Your task to perform on an android device: turn pop-ups off in chrome Image 0: 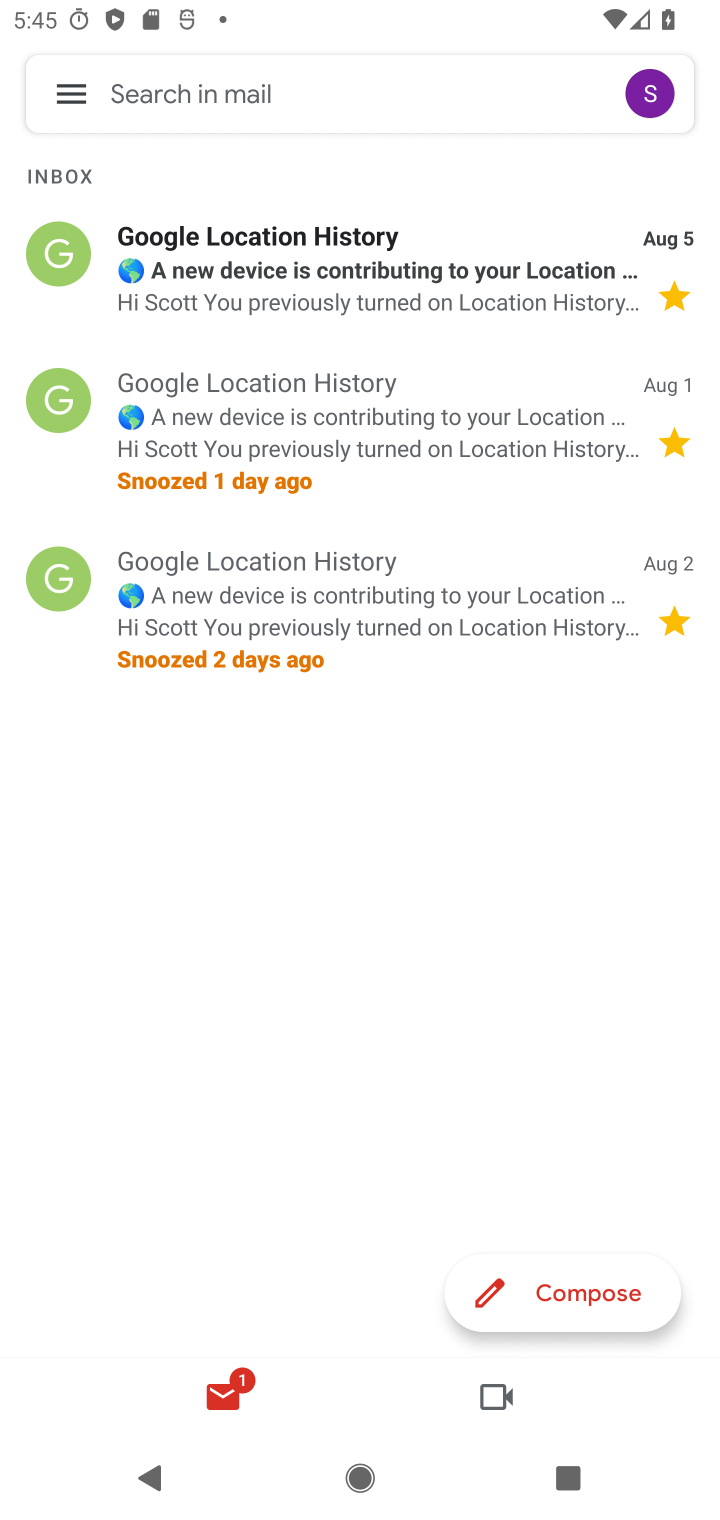
Step 0: press home button
Your task to perform on an android device: turn pop-ups off in chrome Image 1: 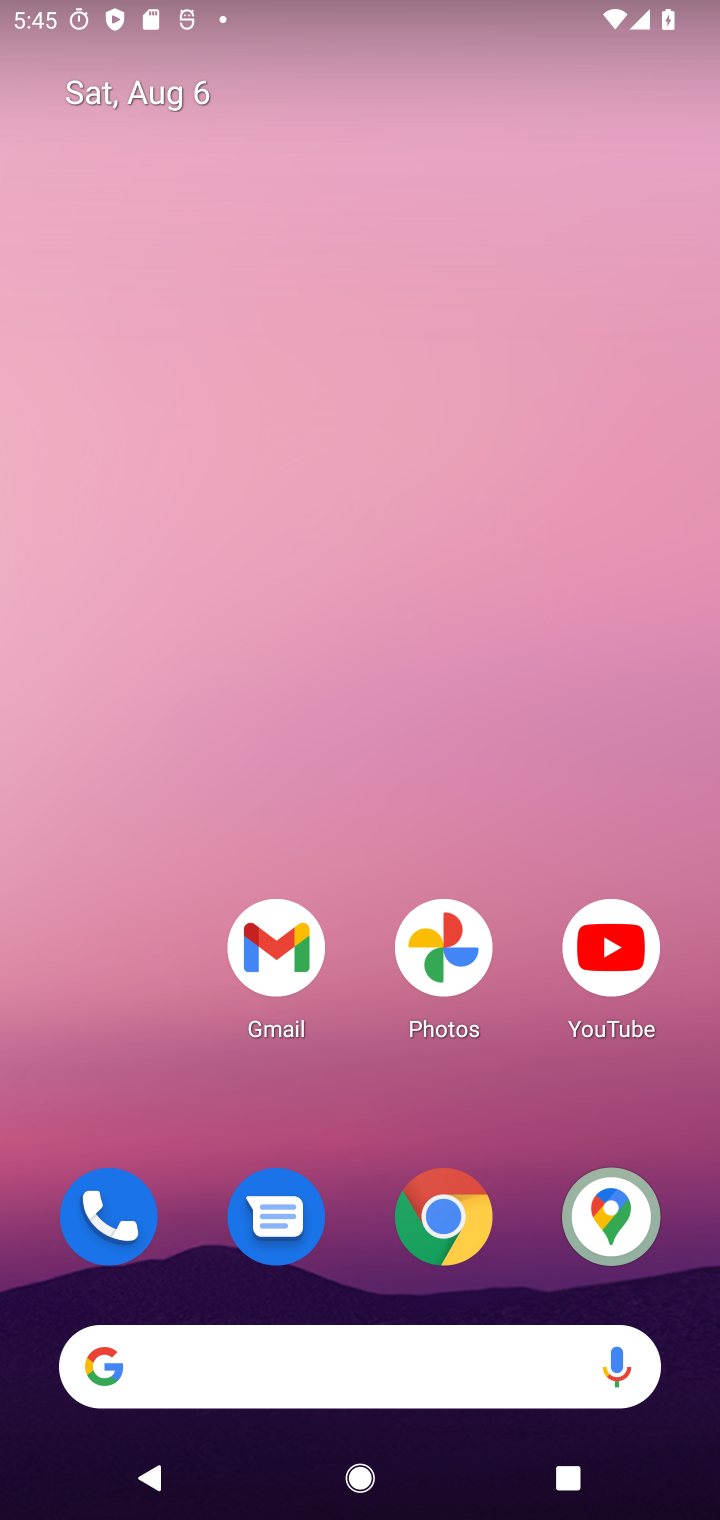
Step 1: drag from (498, 1076) to (516, 0)
Your task to perform on an android device: turn pop-ups off in chrome Image 2: 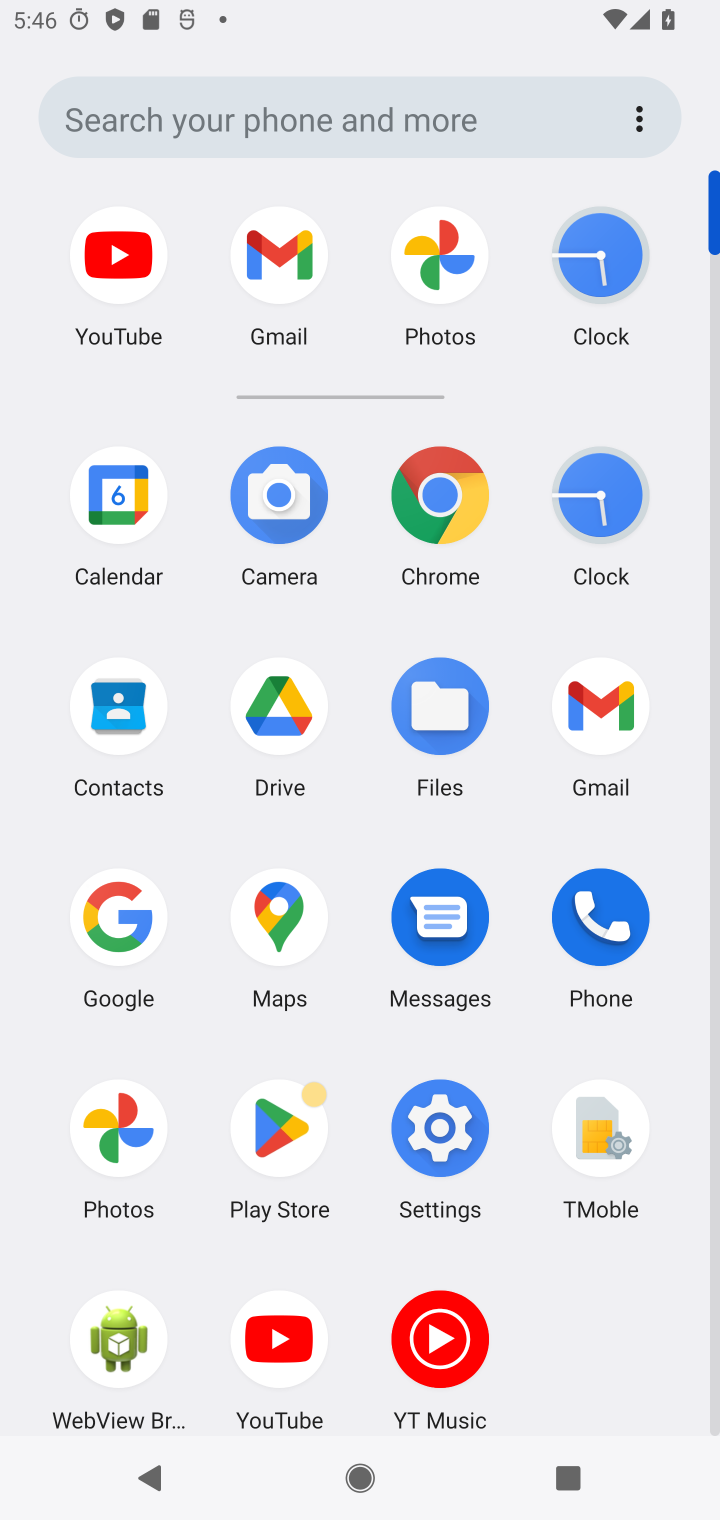
Step 2: click (446, 498)
Your task to perform on an android device: turn pop-ups off in chrome Image 3: 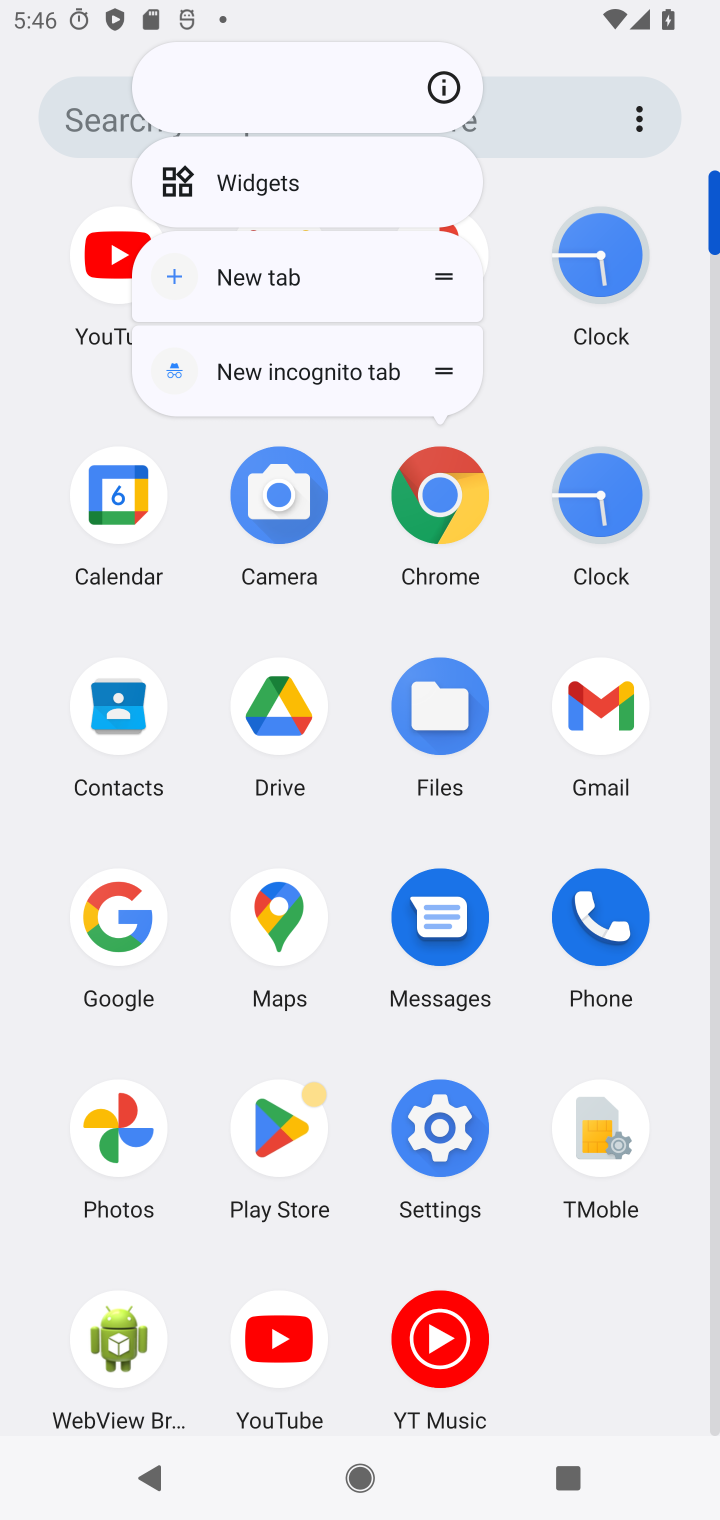
Step 3: click (438, 499)
Your task to perform on an android device: turn pop-ups off in chrome Image 4: 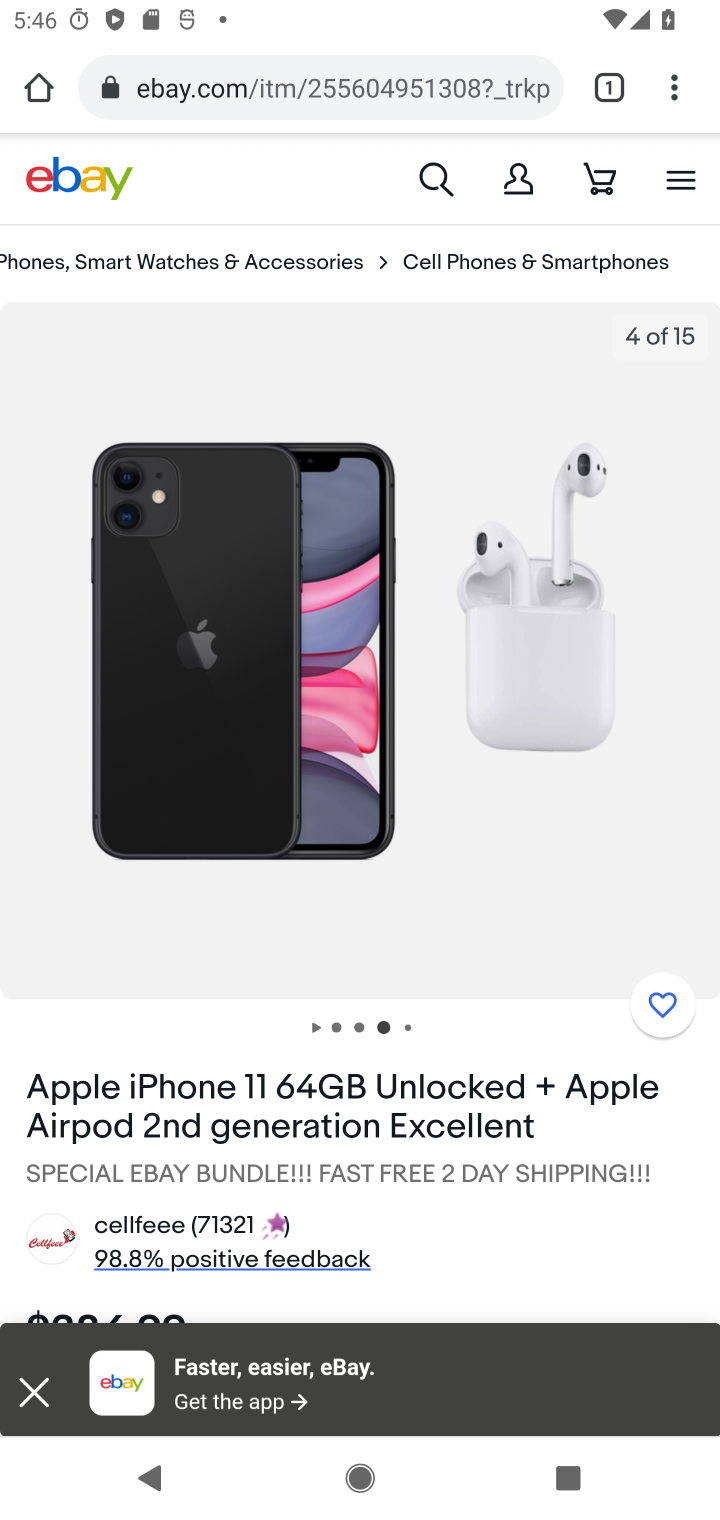
Step 4: drag from (670, 67) to (478, 1081)
Your task to perform on an android device: turn pop-ups off in chrome Image 5: 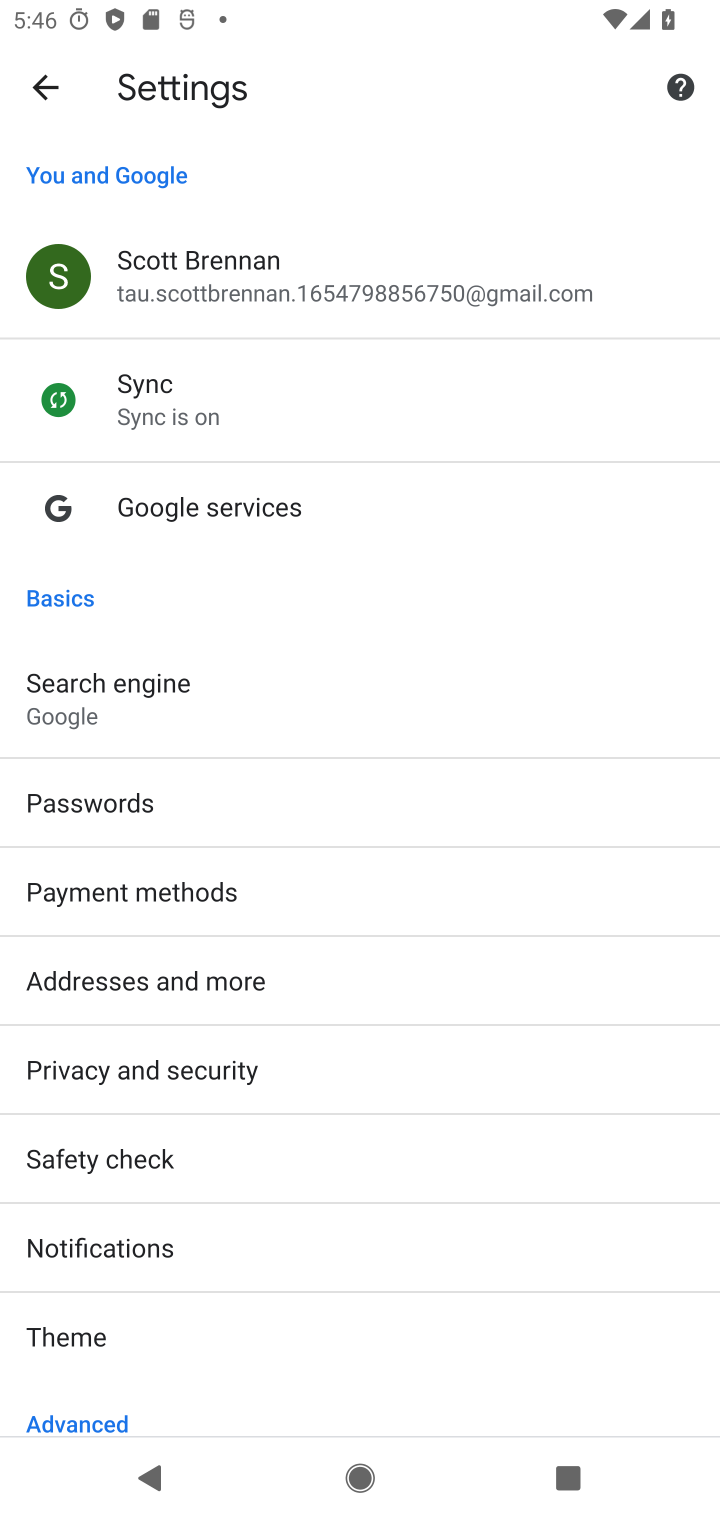
Step 5: drag from (330, 1373) to (396, 482)
Your task to perform on an android device: turn pop-ups off in chrome Image 6: 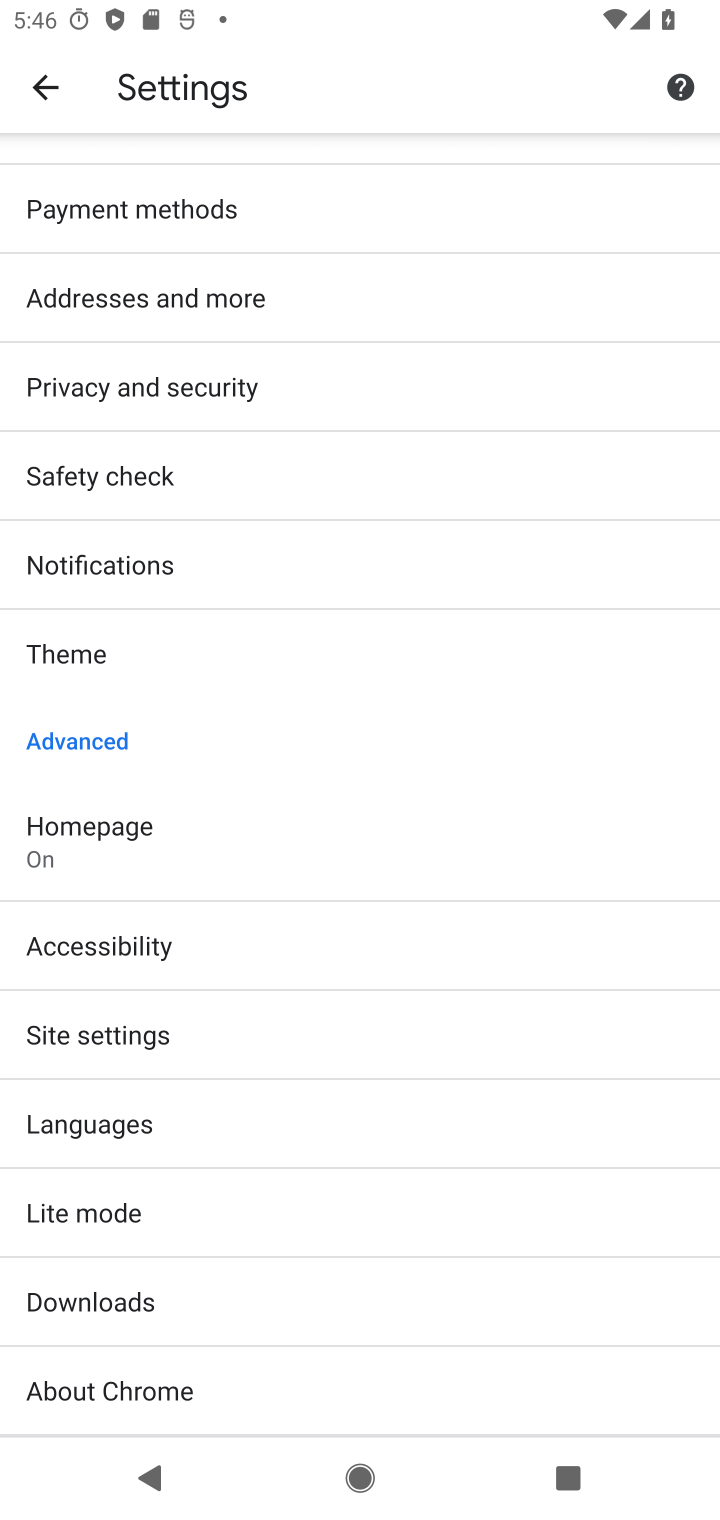
Step 6: click (115, 1023)
Your task to perform on an android device: turn pop-ups off in chrome Image 7: 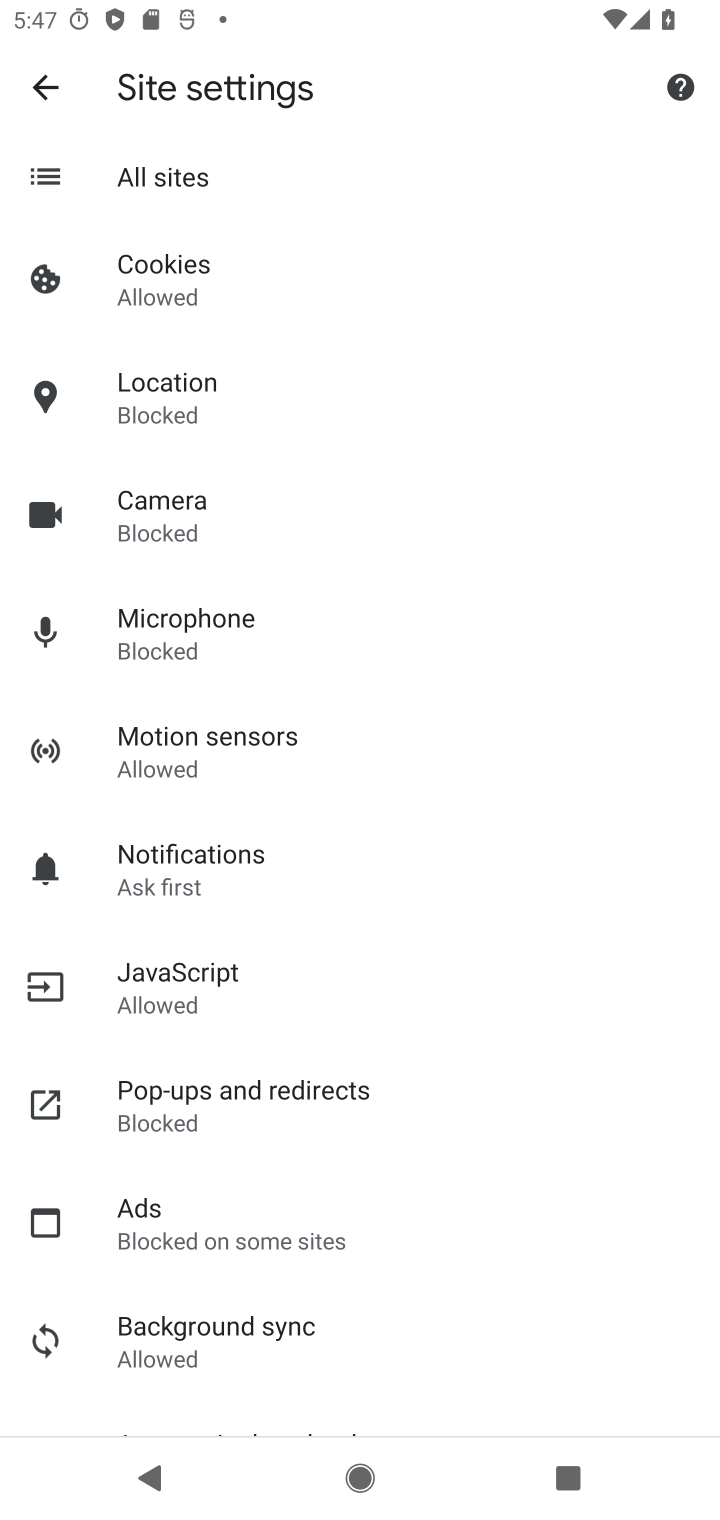
Step 7: click (205, 1098)
Your task to perform on an android device: turn pop-ups off in chrome Image 8: 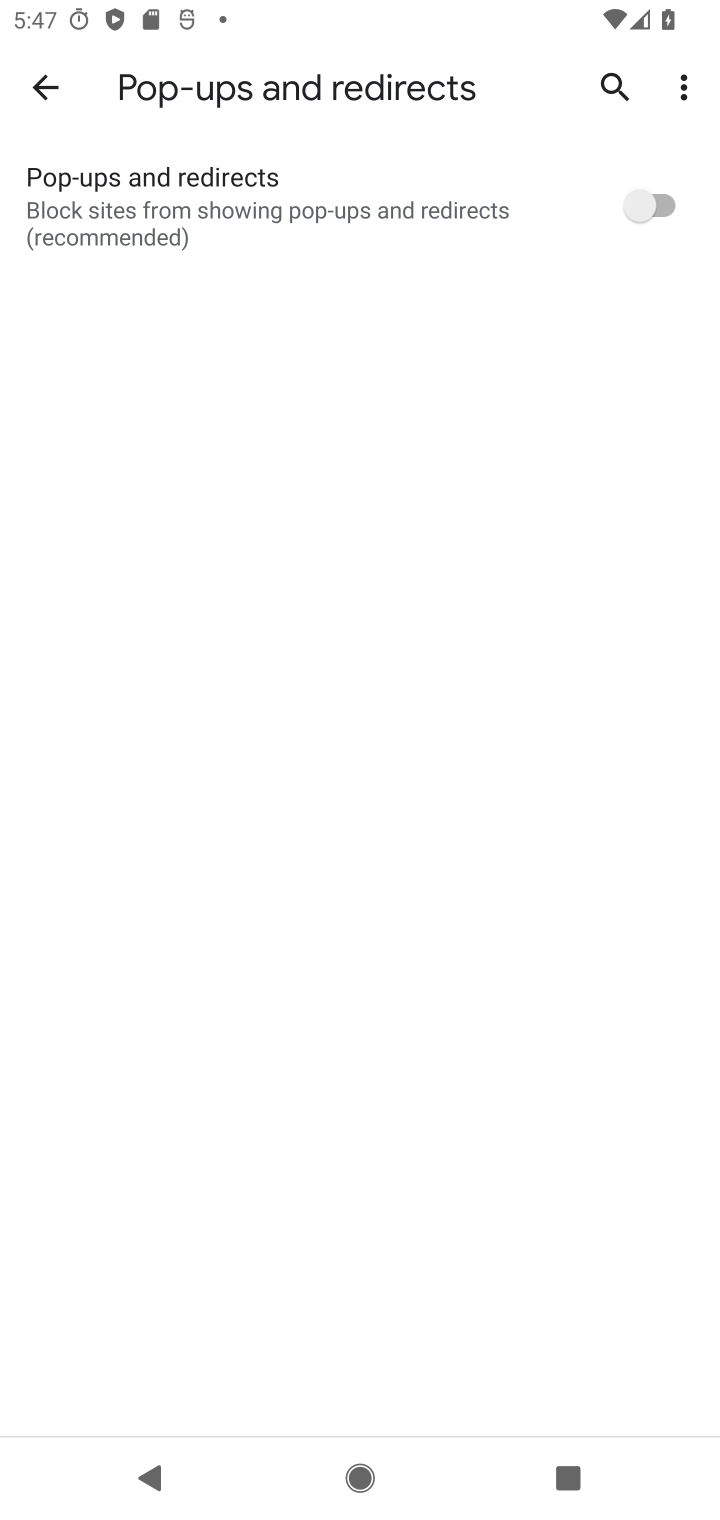
Step 8: task complete